Your task to perform on an android device: set an alarm Image 0: 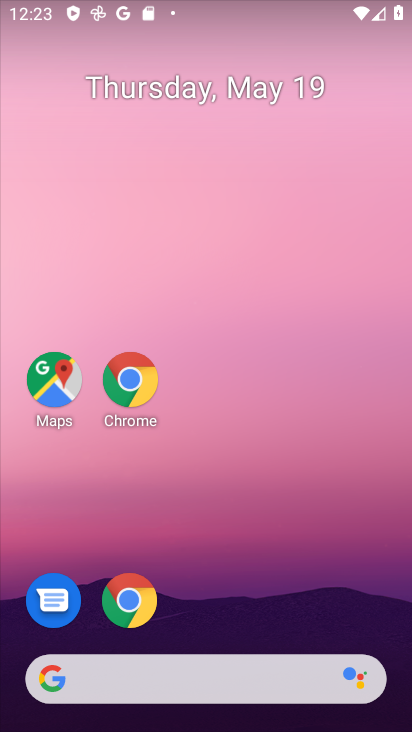
Step 0: drag from (324, 707) to (199, 162)
Your task to perform on an android device: set an alarm Image 1: 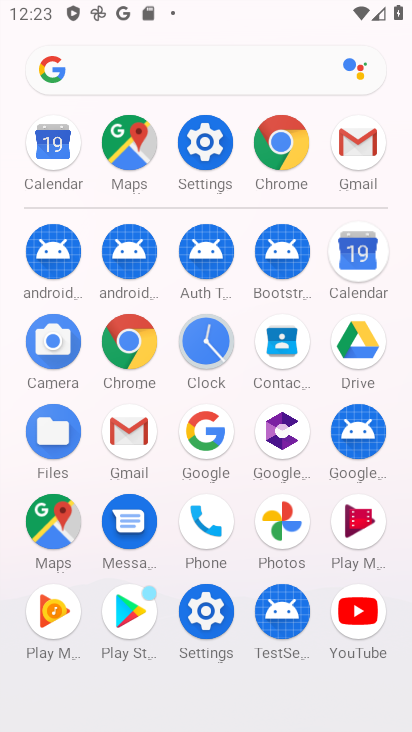
Step 1: click (206, 353)
Your task to perform on an android device: set an alarm Image 2: 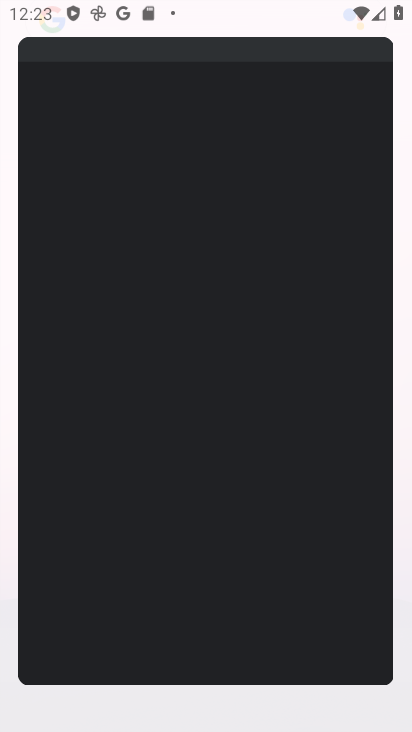
Step 2: click (206, 353)
Your task to perform on an android device: set an alarm Image 3: 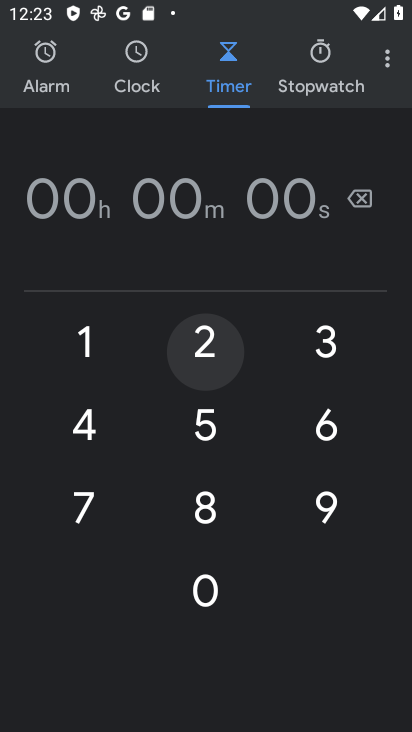
Step 3: click (206, 353)
Your task to perform on an android device: set an alarm Image 4: 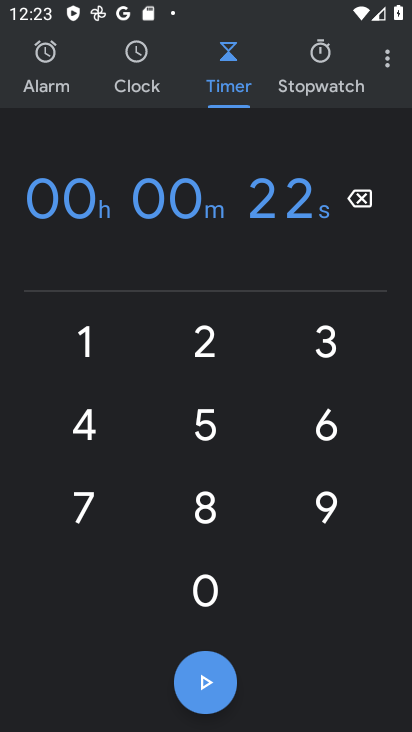
Step 4: click (201, 497)
Your task to perform on an android device: set an alarm Image 5: 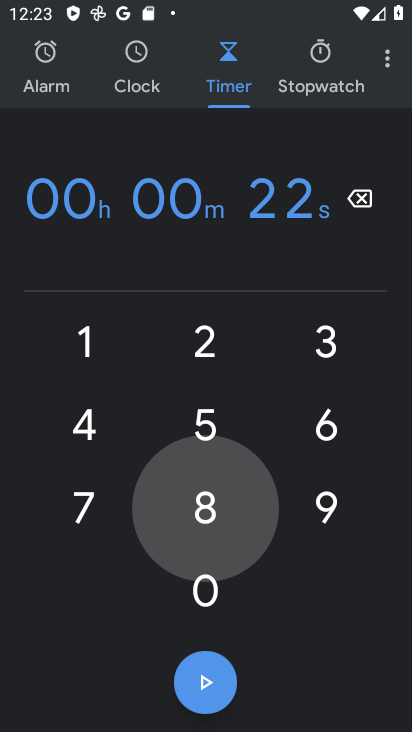
Step 5: click (201, 497)
Your task to perform on an android device: set an alarm Image 6: 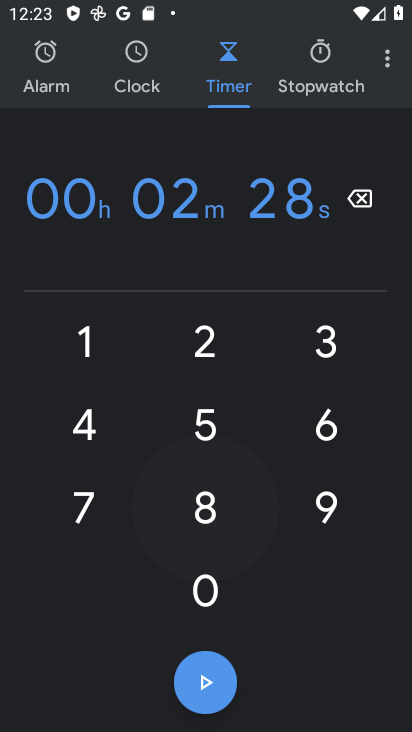
Step 6: click (202, 499)
Your task to perform on an android device: set an alarm Image 7: 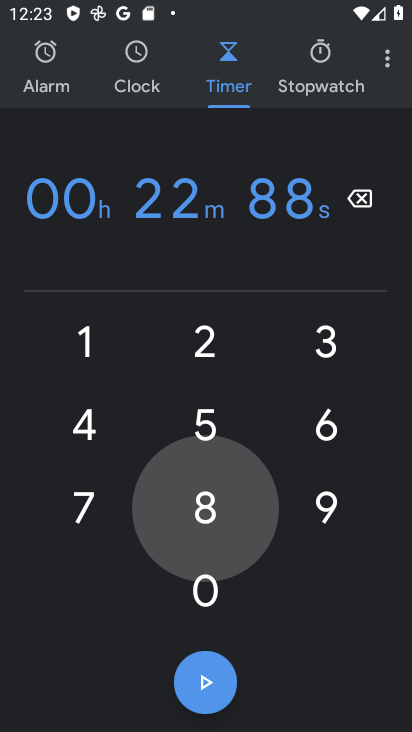
Step 7: click (203, 502)
Your task to perform on an android device: set an alarm Image 8: 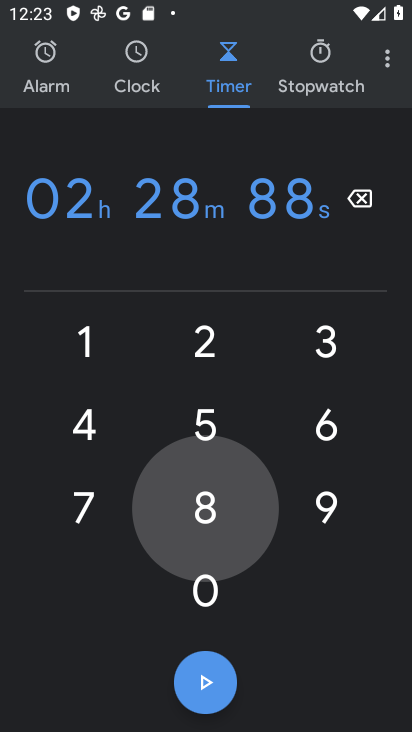
Step 8: click (203, 502)
Your task to perform on an android device: set an alarm Image 9: 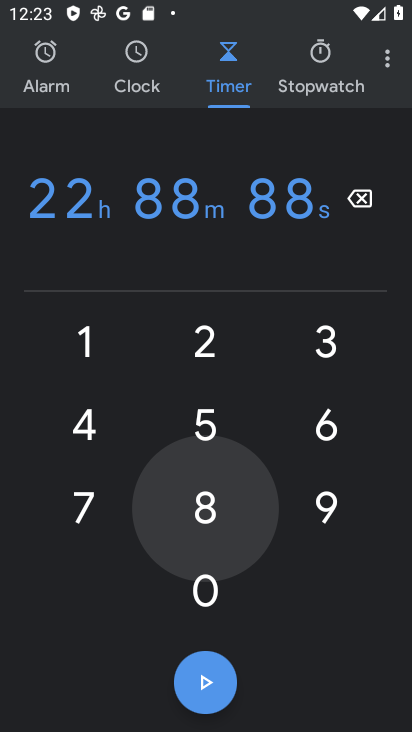
Step 9: click (203, 502)
Your task to perform on an android device: set an alarm Image 10: 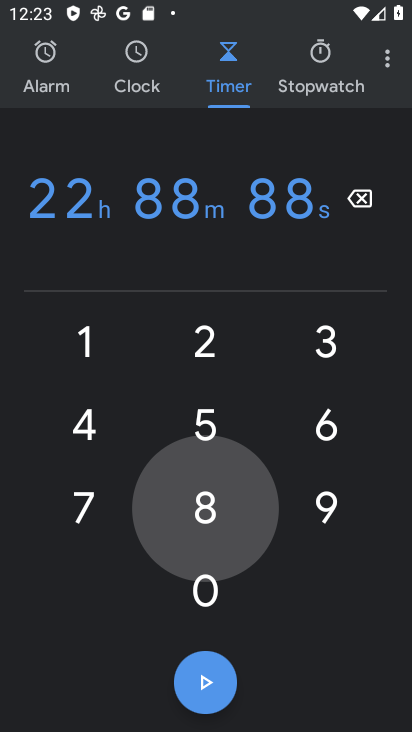
Step 10: click (203, 502)
Your task to perform on an android device: set an alarm Image 11: 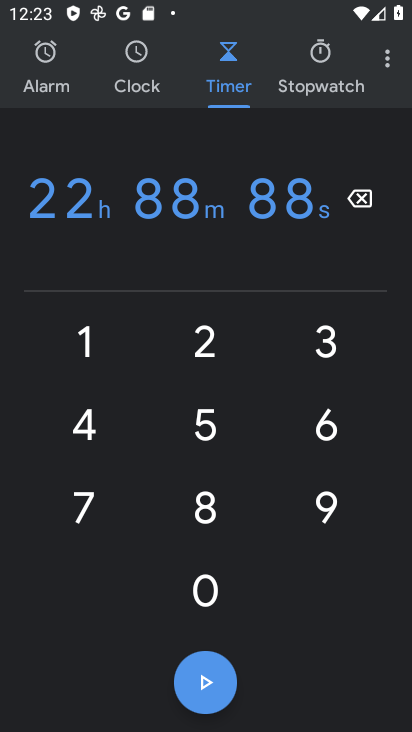
Step 11: click (40, 63)
Your task to perform on an android device: set an alarm Image 12: 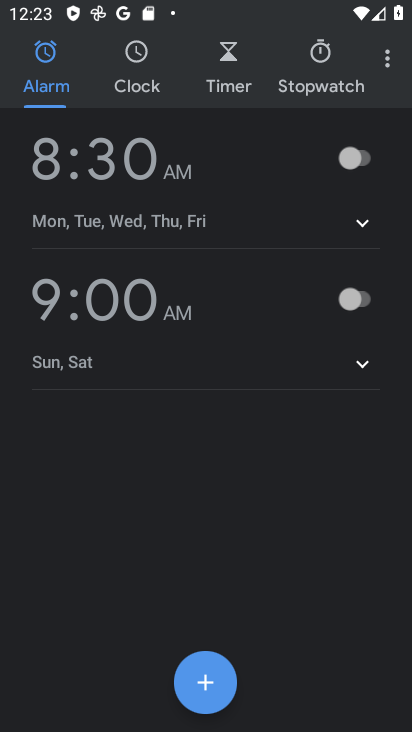
Step 12: click (344, 151)
Your task to perform on an android device: set an alarm Image 13: 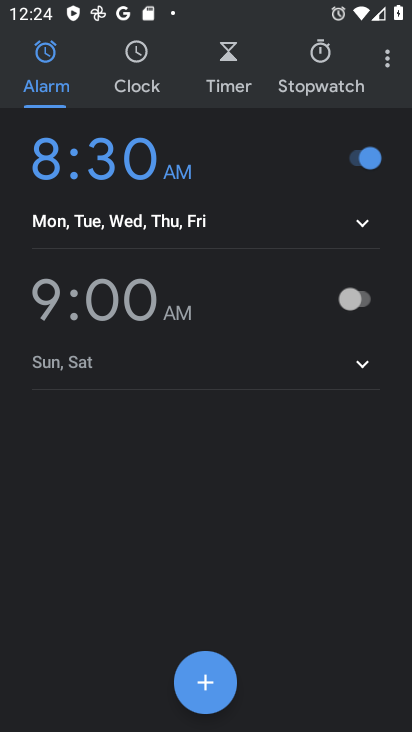
Step 13: task complete